Your task to perform on an android device: open device folders in google photos Image 0: 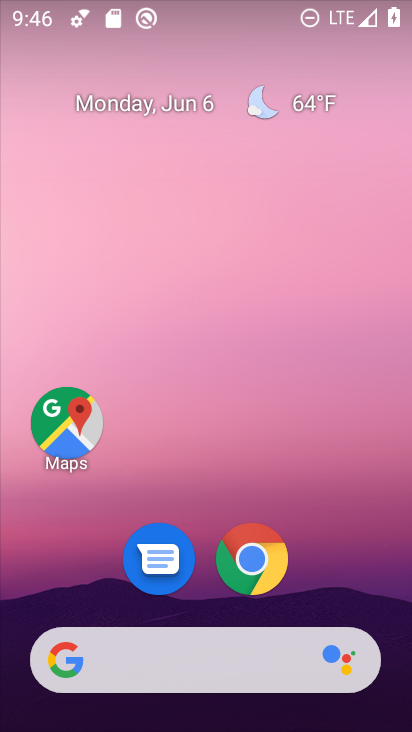
Step 0: drag from (245, 685) to (242, 142)
Your task to perform on an android device: open device folders in google photos Image 1: 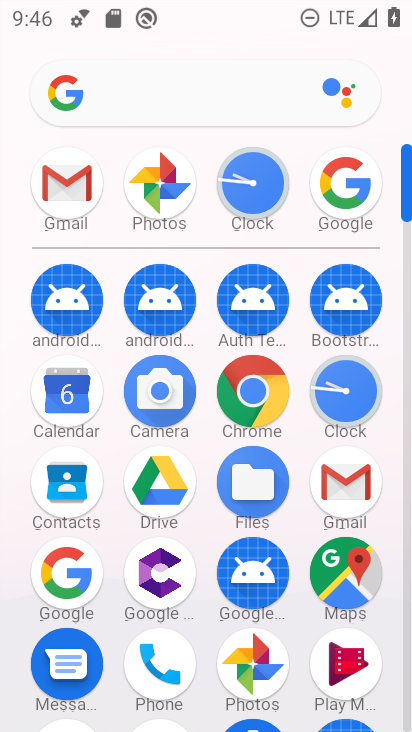
Step 1: click (254, 659)
Your task to perform on an android device: open device folders in google photos Image 2: 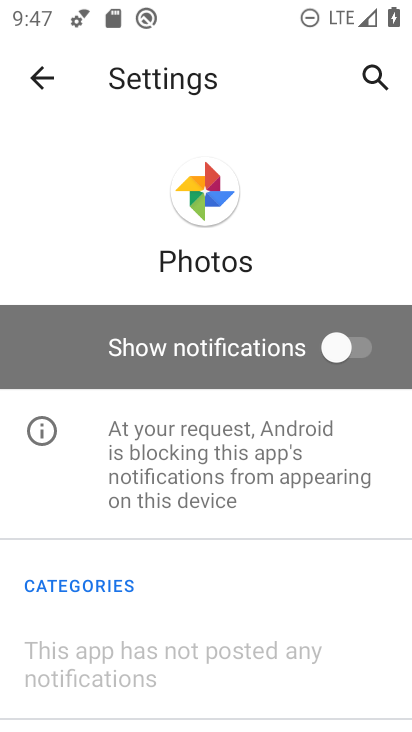
Step 2: click (36, 76)
Your task to perform on an android device: open device folders in google photos Image 3: 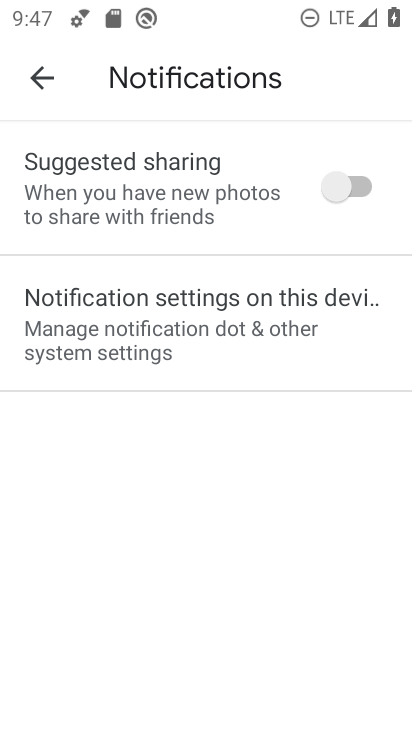
Step 3: click (36, 76)
Your task to perform on an android device: open device folders in google photos Image 4: 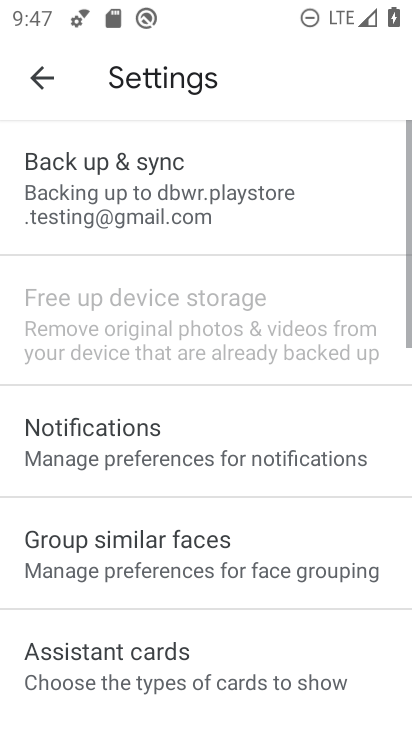
Step 4: click (36, 76)
Your task to perform on an android device: open device folders in google photos Image 5: 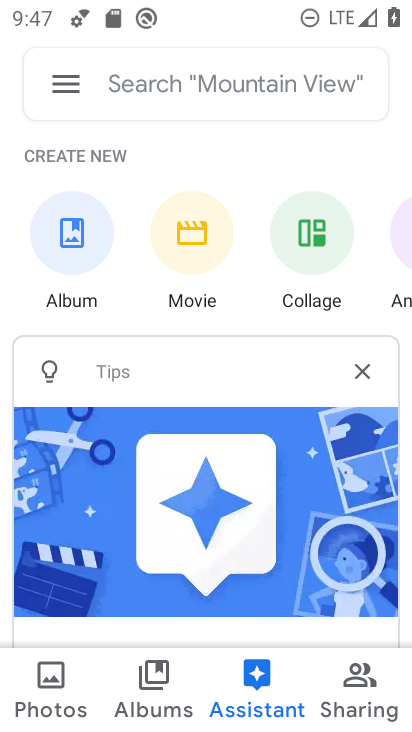
Step 5: click (55, 91)
Your task to perform on an android device: open device folders in google photos Image 6: 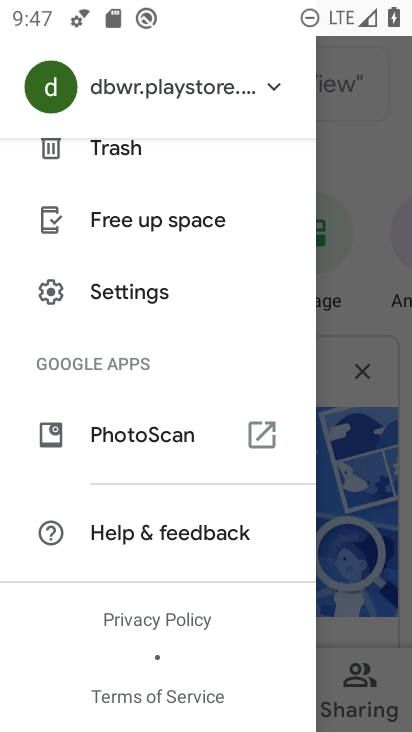
Step 6: drag from (182, 181) to (160, 538)
Your task to perform on an android device: open device folders in google photos Image 7: 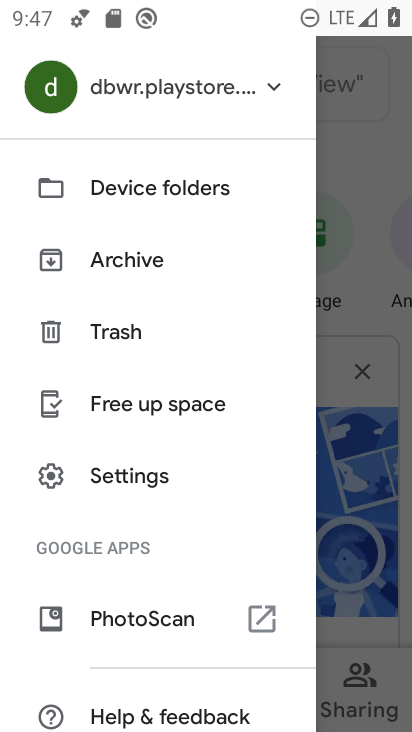
Step 7: drag from (178, 164) to (178, 594)
Your task to perform on an android device: open device folders in google photos Image 8: 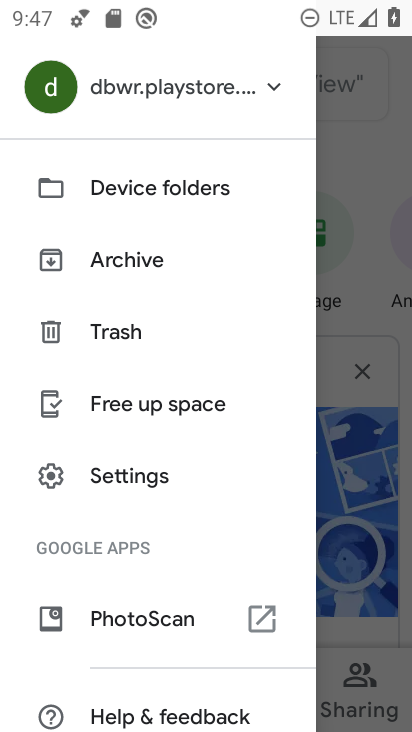
Step 8: click (131, 196)
Your task to perform on an android device: open device folders in google photos Image 9: 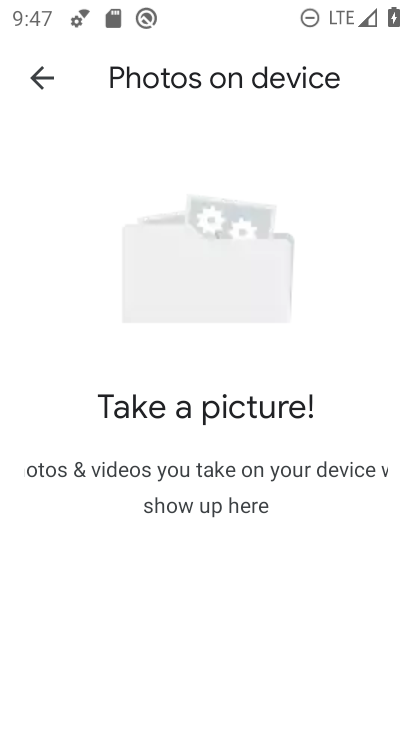
Step 9: task complete